Your task to perform on an android device: turn off improve location accuracy Image 0: 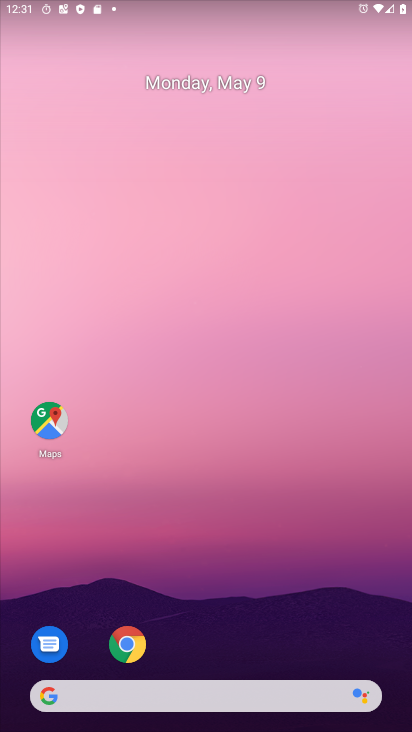
Step 0: click (208, 217)
Your task to perform on an android device: turn off improve location accuracy Image 1: 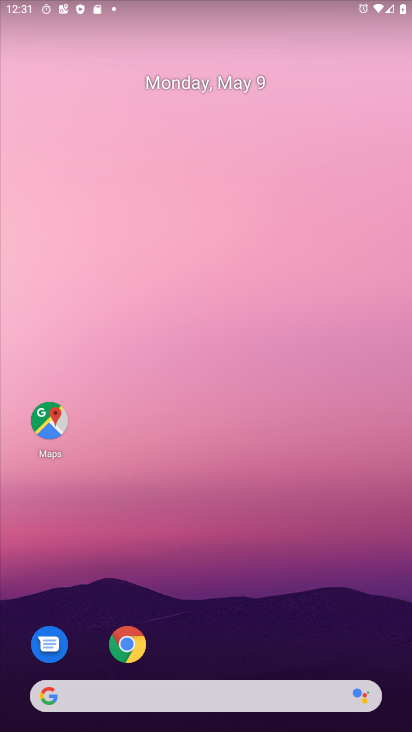
Step 1: drag from (288, 482) to (133, 124)
Your task to perform on an android device: turn off improve location accuracy Image 2: 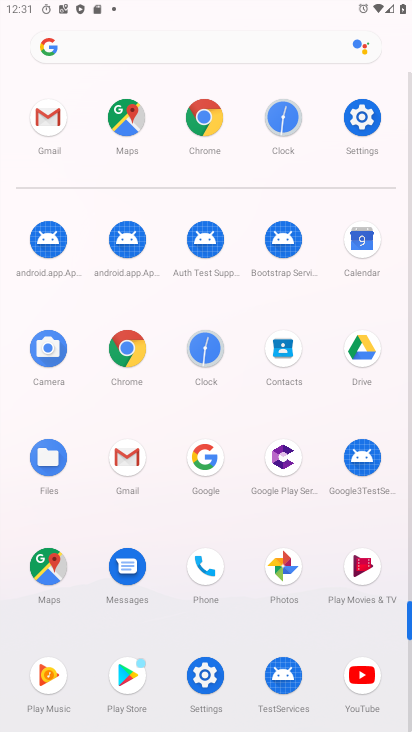
Step 2: click (357, 116)
Your task to perform on an android device: turn off improve location accuracy Image 3: 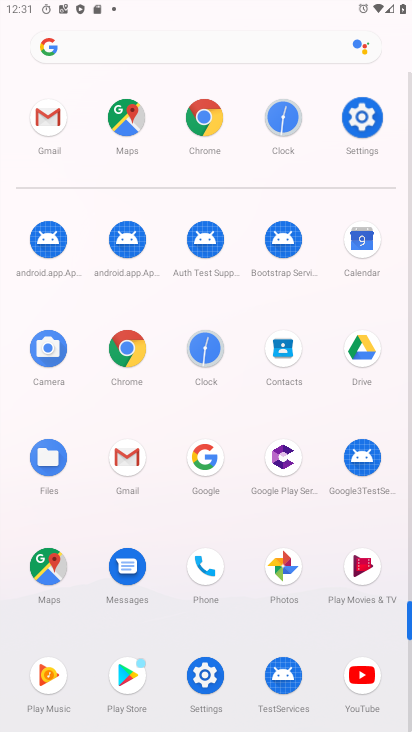
Step 3: click (357, 116)
Your task to perform on an android device: turn off improve location accuracy Image 4: 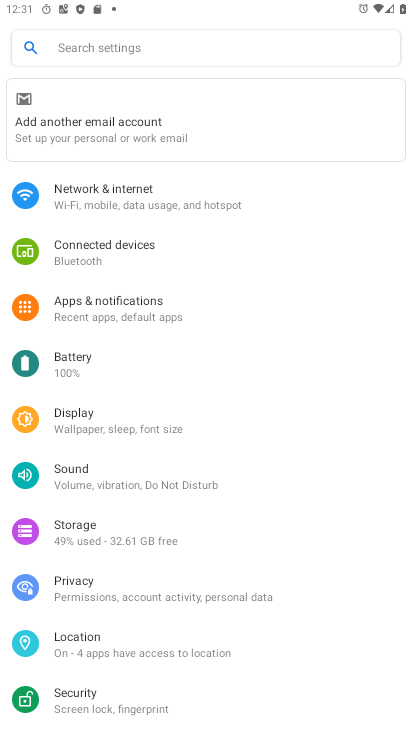
Step 4: click (79, 634)
Your task to perform on an android device: turn off improve location accuracy Image 5: 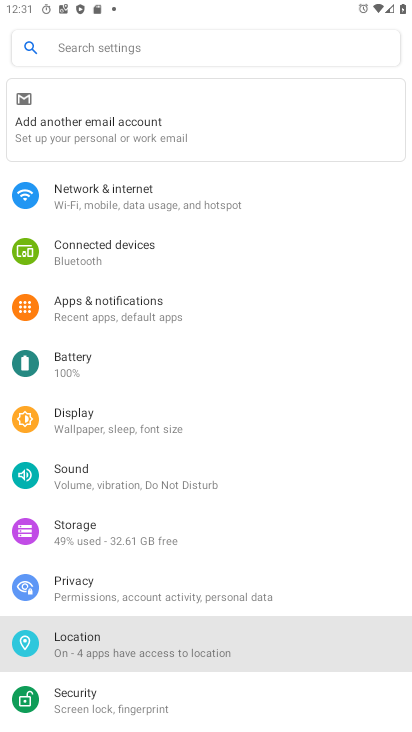
Step 5: click (92, 647)
Your task to perform on an android device: turn off improve location accuracy Image 6: 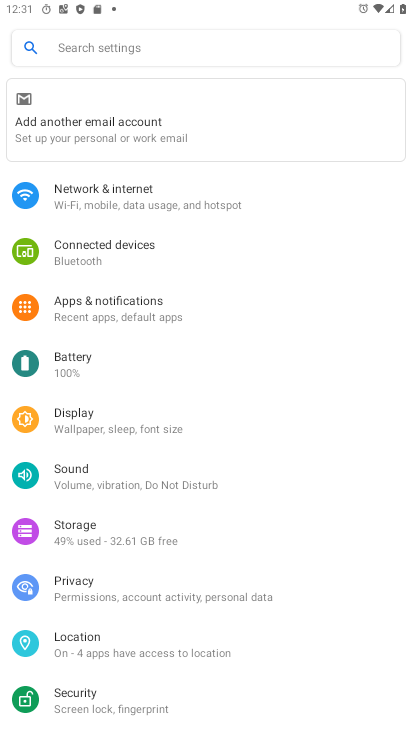
Step 6: click (92, 647)
Your task to perform on an android device: turn off improve location accuracy Image 7: 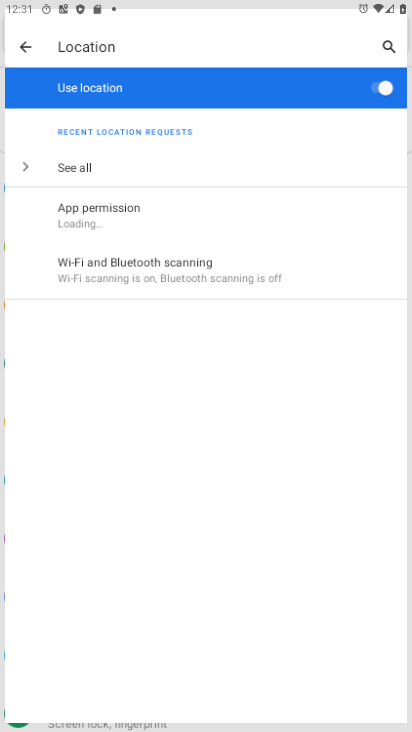
Step 7: click (94, 650)
Your task to perform on an android device: turn off improve location accuracy Image 8: 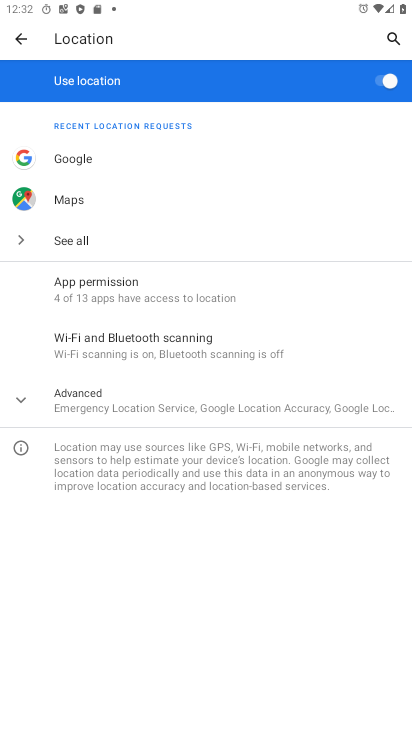
Step 8: click (96, 399)
Your task to perform on an android device: turn off improve location accuracy Image 9: 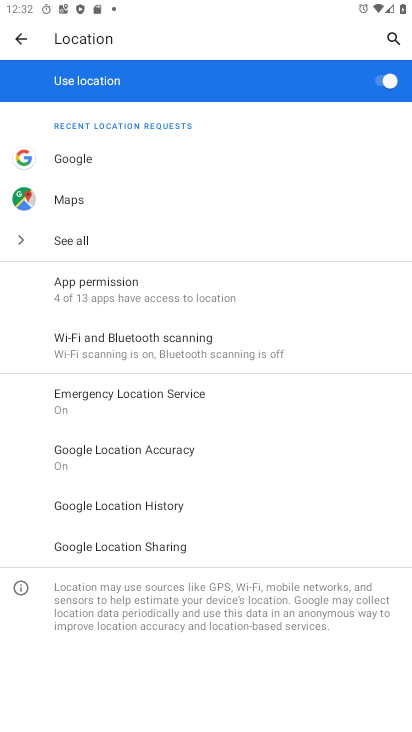
Step 9: click (107, 446)
Your task to perform on an android device: turn off improve location accuracy Image 10: 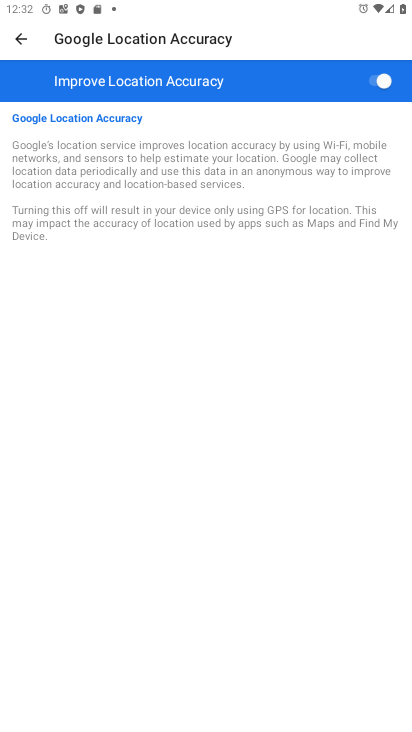
Step 10: click (375, 89)
Your task to perform on an android device: turn off improve location accuracy Image 11: 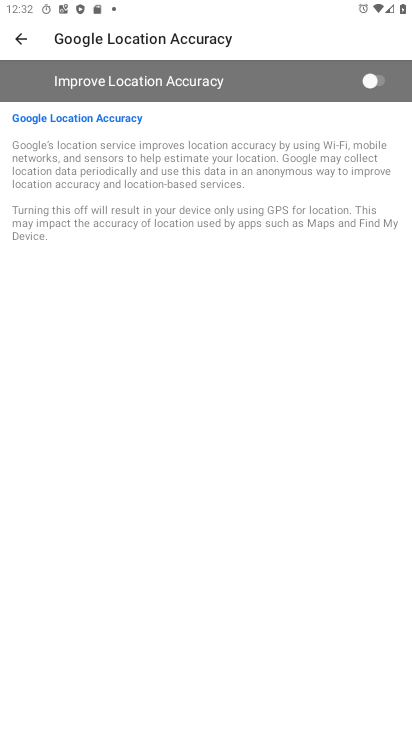
Step 11: task complete